Your task to perform on an android device: open app "Nova Launcher" (install if not already installed) Image 0: 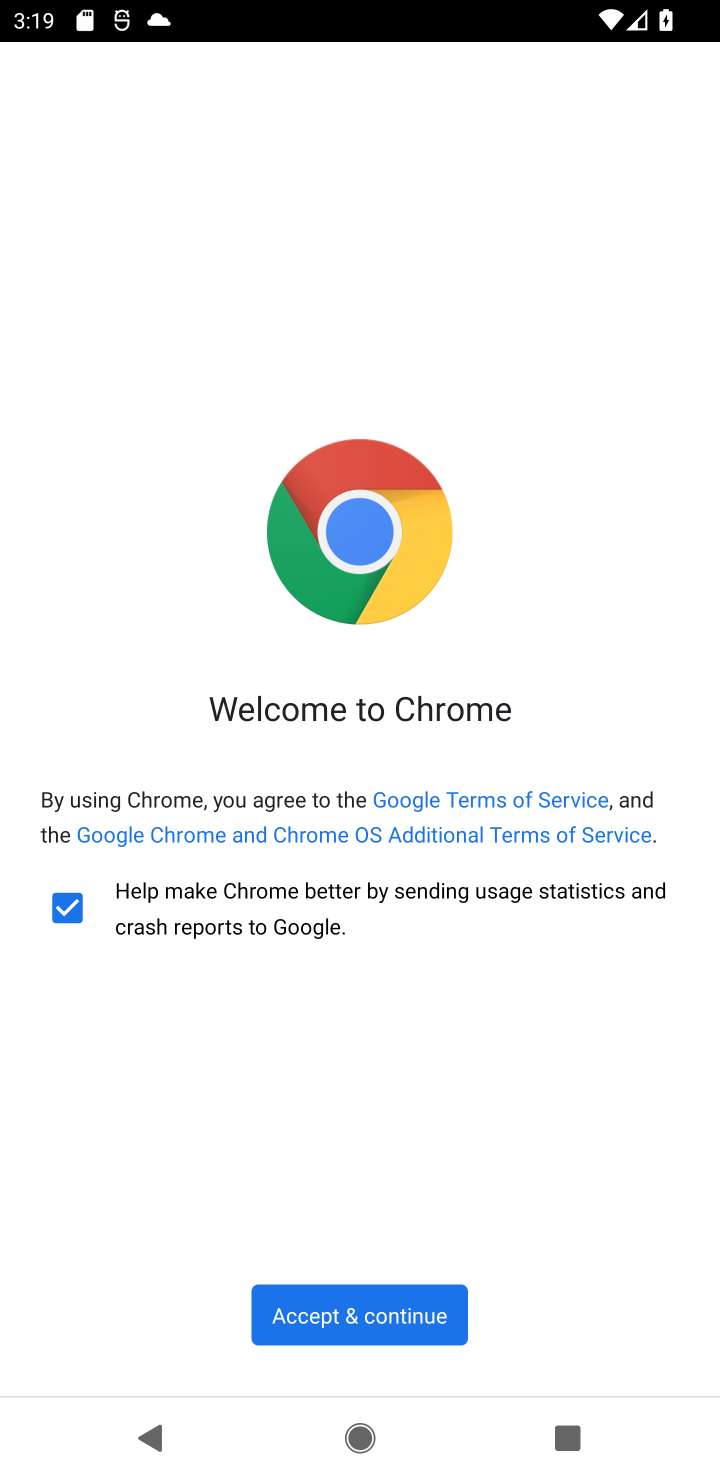
Step 0: press home button
Your task to perform on an android device: open app "Nova Launcher" (install if not already installed) Image 1: 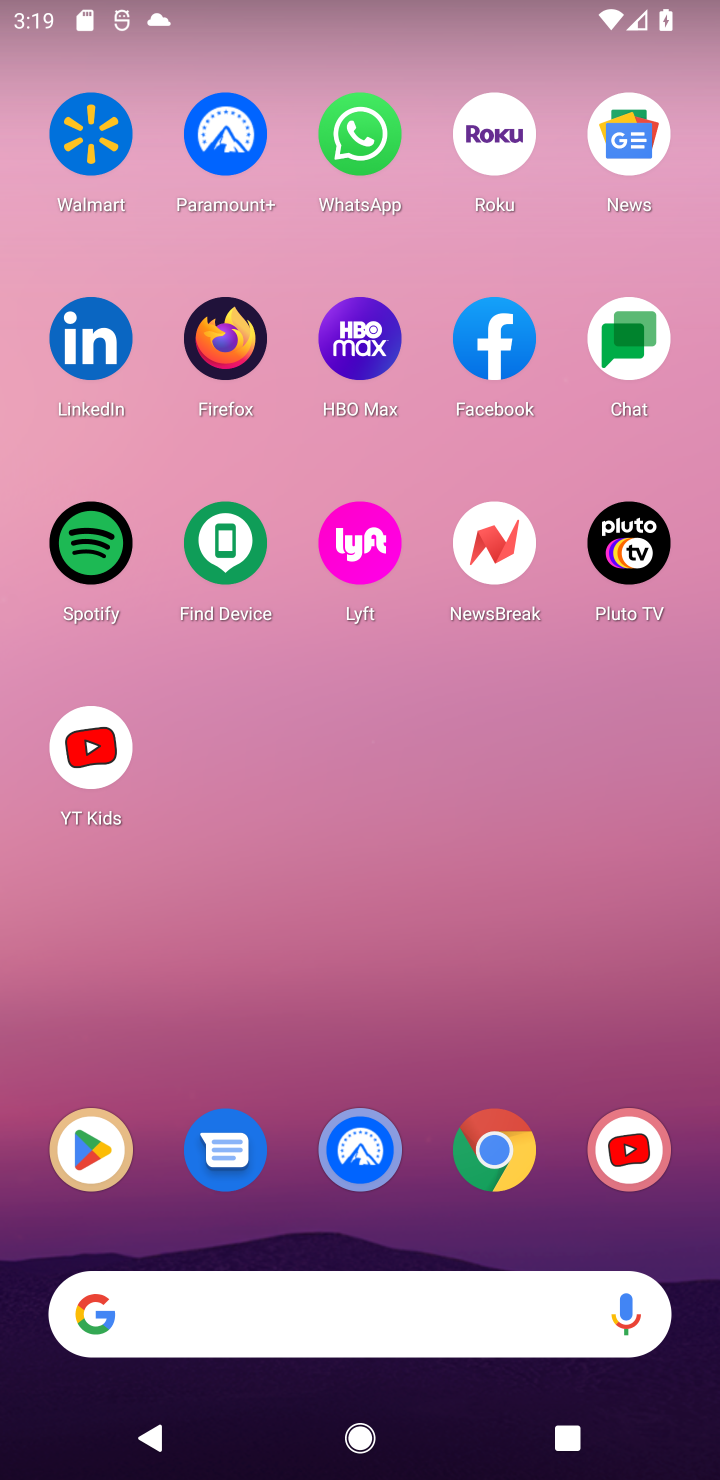
Step 1: click (92, 1142)
Your task to perform on an android device: open app "Nova Launcher" (install if not already installed) Image 2: 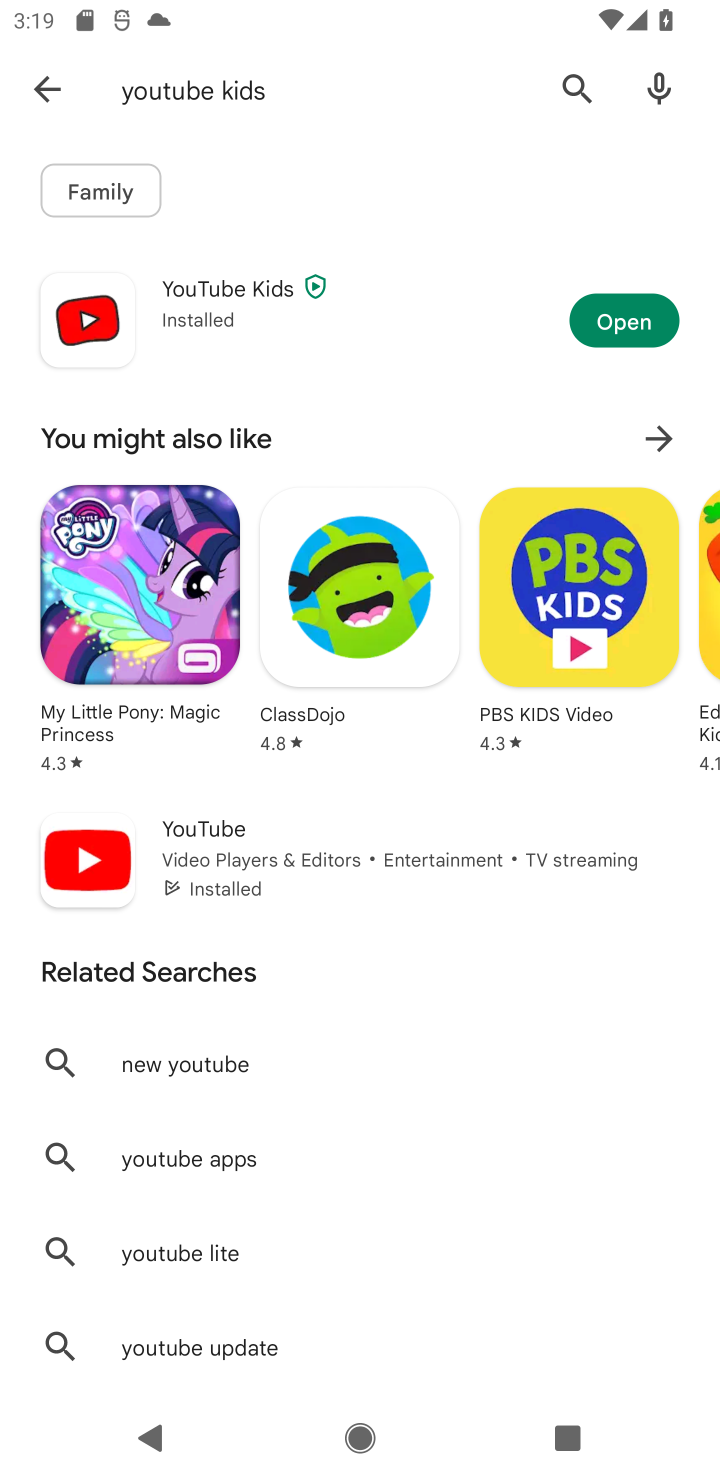
Step 2: click (569, 87)
Your task to perform on an android device: open app "Nova Launcher" (install if not already installed) Image 3: 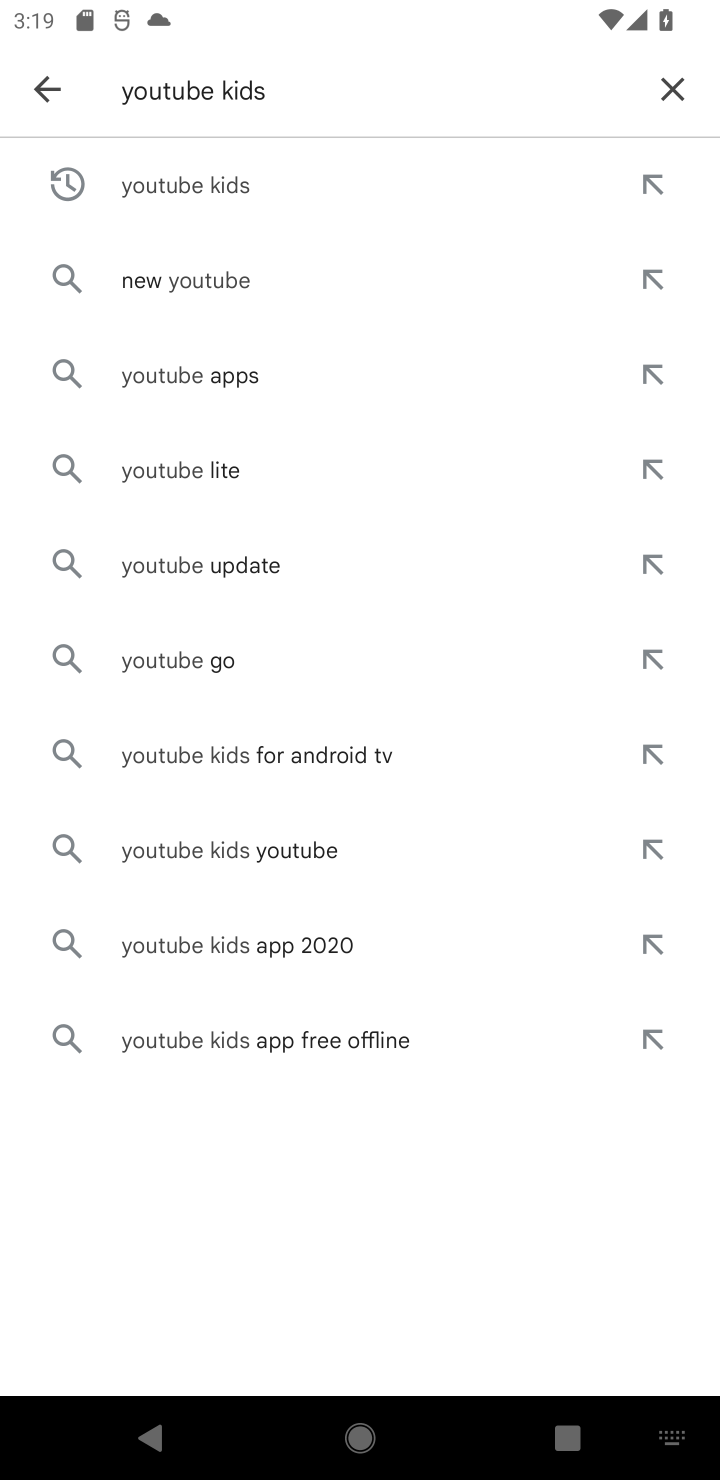
Step 3: click (671, 87)
Your task to perform on an android device: open app "Nova Launcher" (install if not already installed) Image 4: 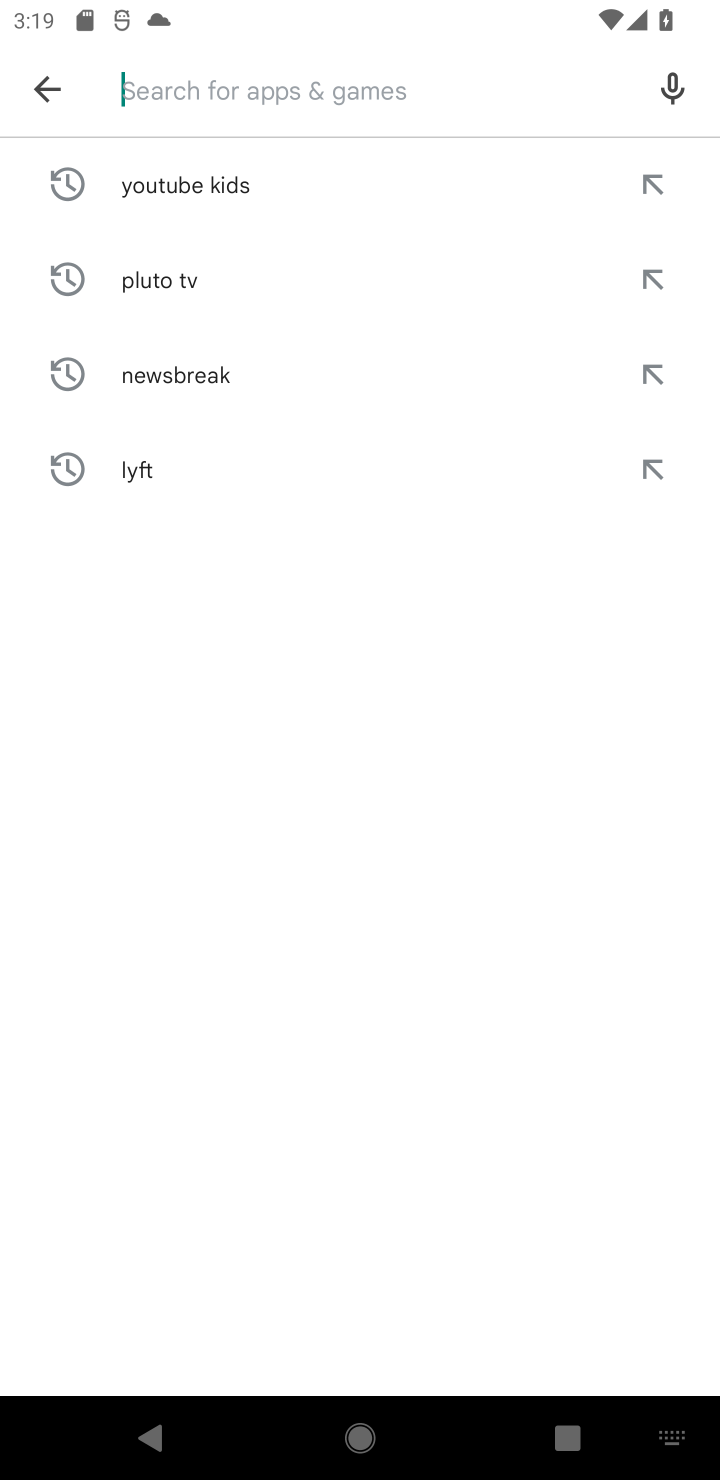
Step 4: type "nova launcher"
Your task to perform on an android device: open app "Nova Launcher" (install if not already installed) Image 5: 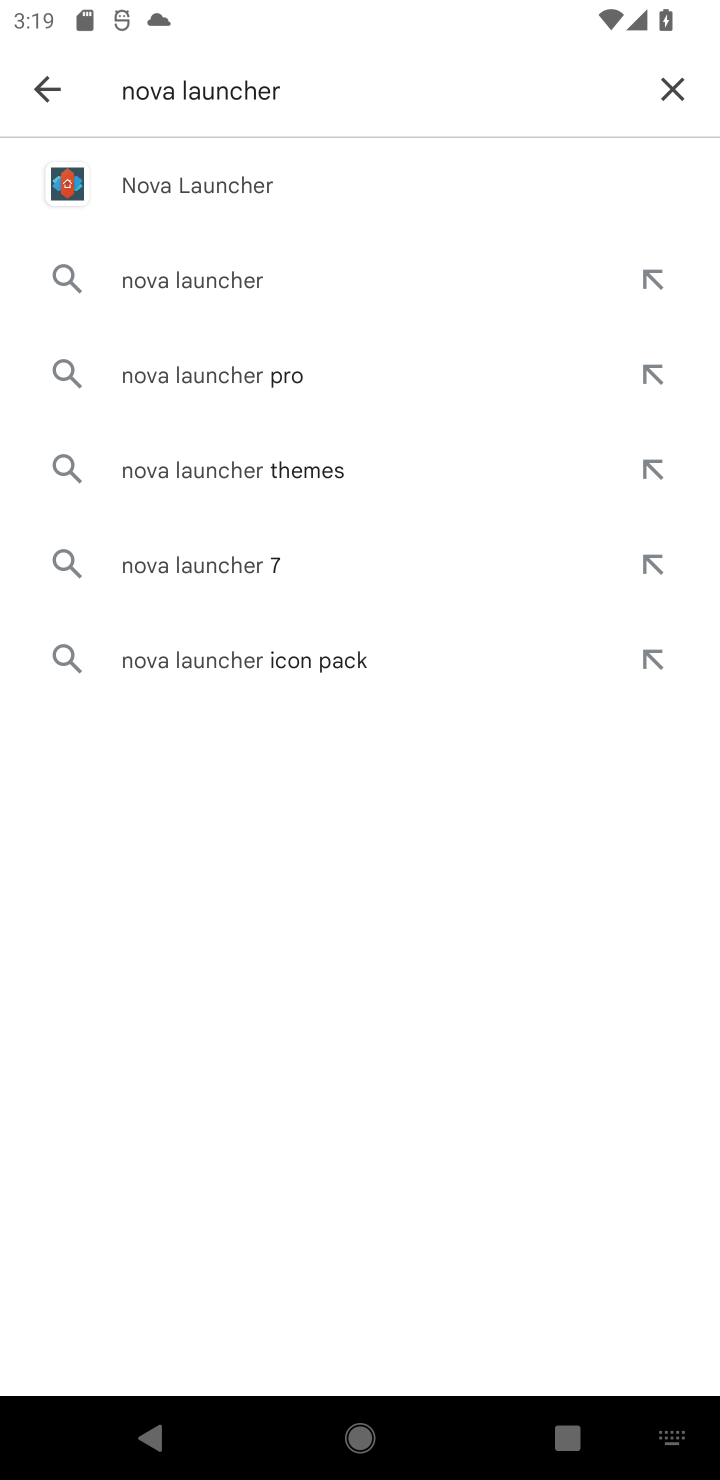
Step 5: click (355, 175)
Your task to perform on an android device: open app "Nova Launcher" (install if not already installed) Image 6: 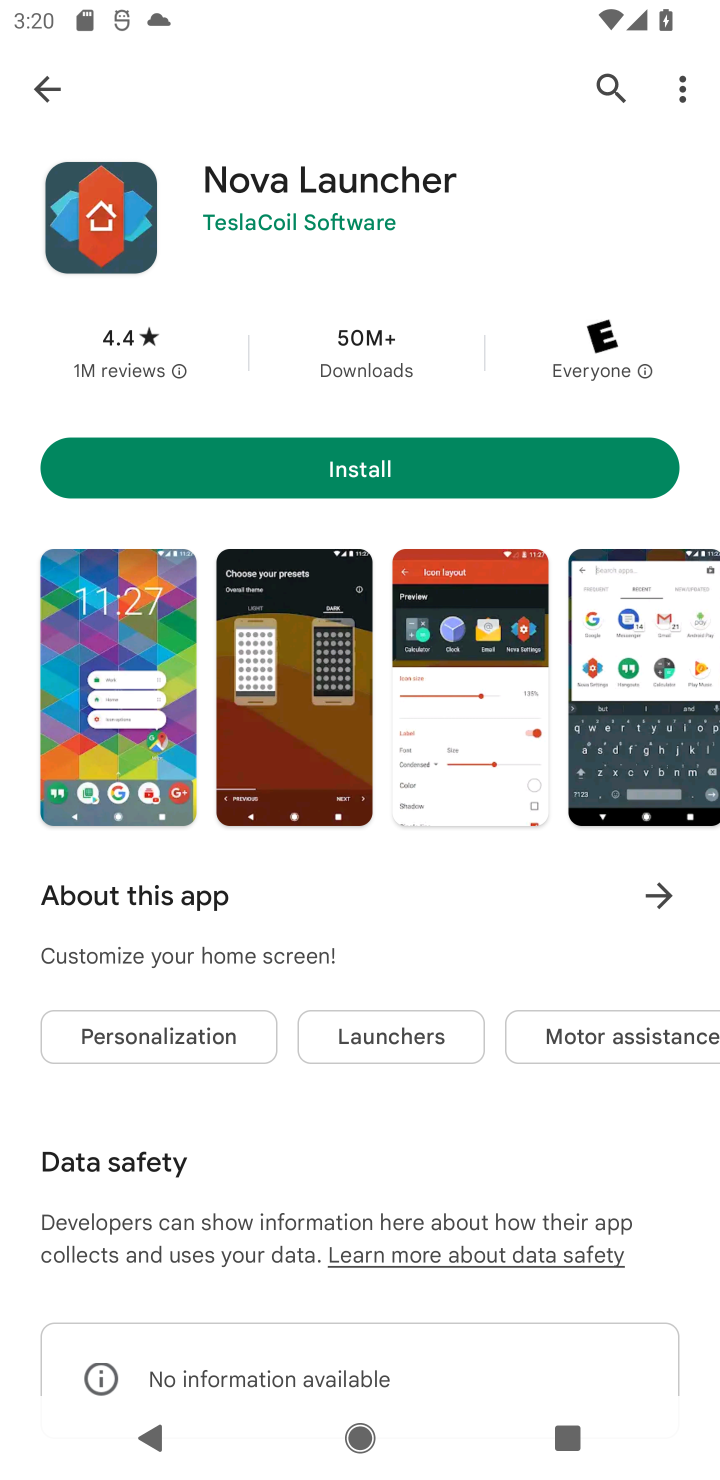
Step 6: click (485, 483)
Your task to perform on an android device: open app "Nova Launcher" (install if not already installed) Image 7: 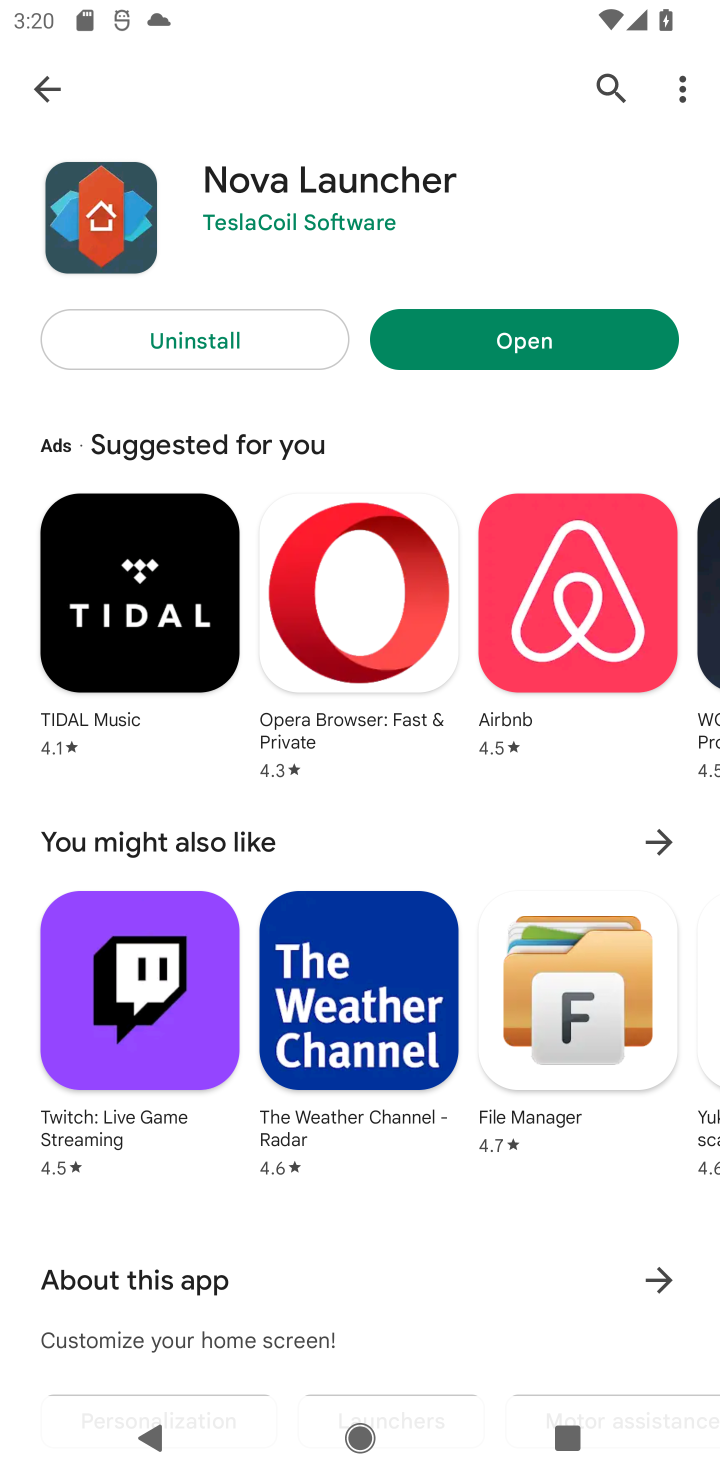
Step 7: click (437, 325)
Your task to perform on an android device: open app "Nova Launcher" (install if not already installed) Image 8: 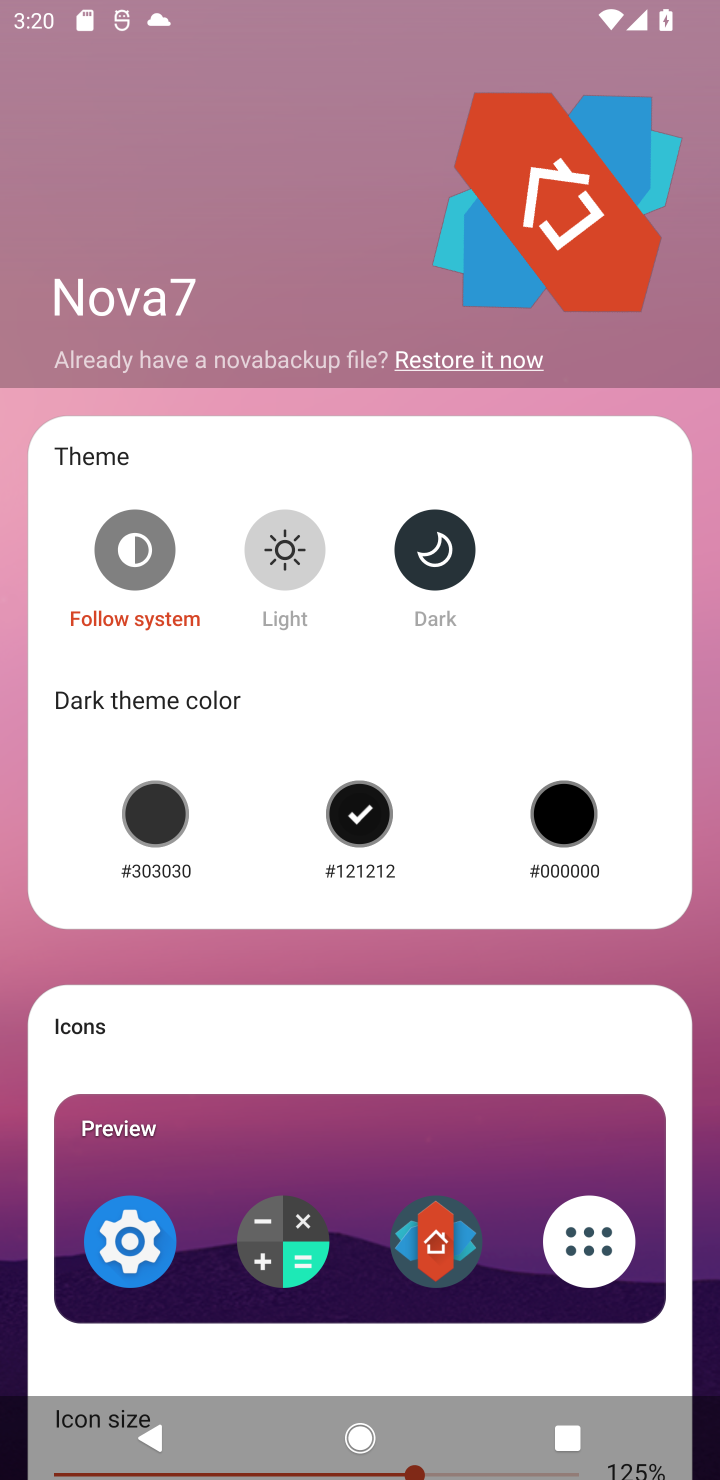
Step 8: task complete